Your task to perform on an android device: Open Youtube and go to the subscriptions tab Image 0: 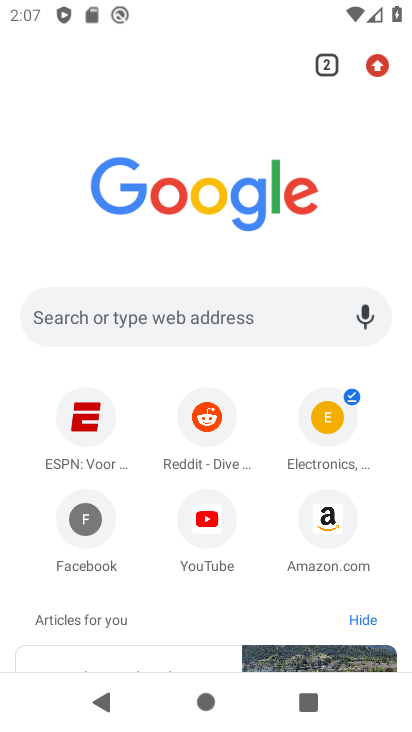
Step 0: press home button
Your task to perform on an android device: Open Youtube and go to the subscriptions tab Image 1: 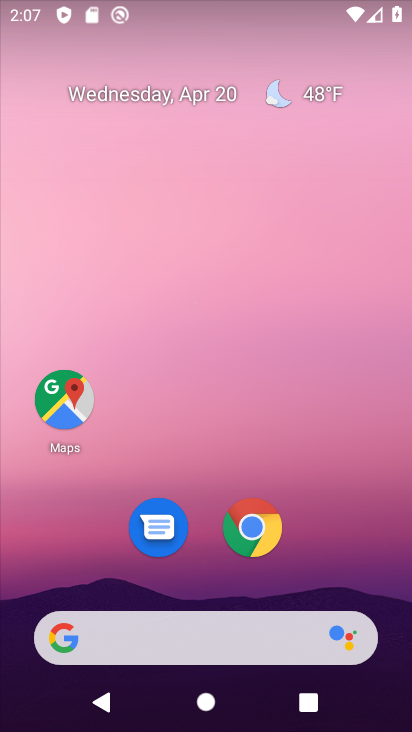
Step 1: drag from (207, 583) to (196, 85)
Your task to perform on an android device: Open Youtube and go to the subscriptions tab Image 2: 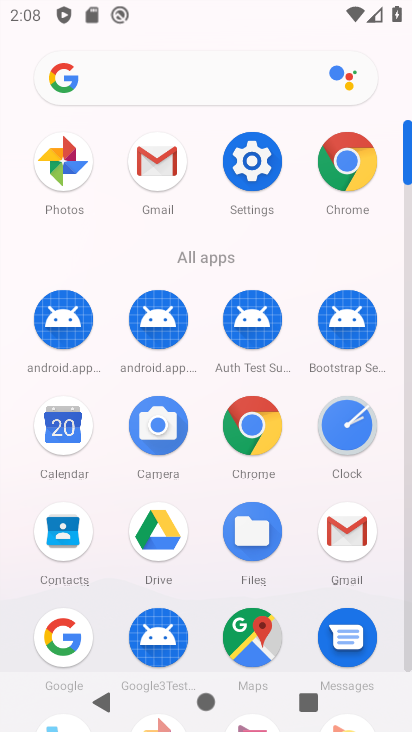
Step 2: drag from (195, 310) to (180, 143)
Your task to perform on an android device: Open Youtube and go to the subscriptions tab Image 3: 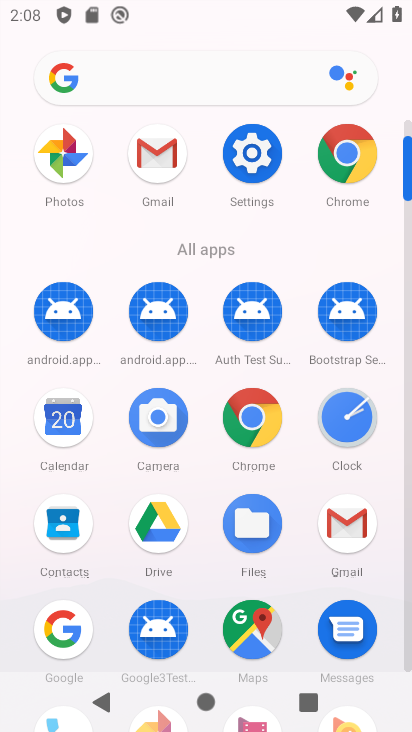
Step 3: drag from (194, 591) to (200, 52)
Your task to perform on an android device: Open Youtube and go to the subscriptions tab Image 4: 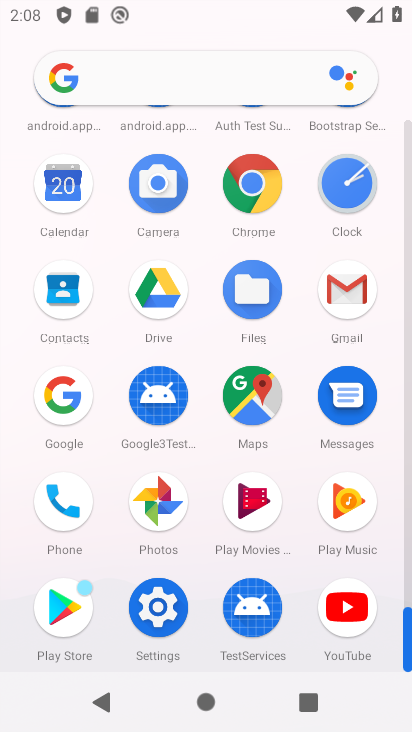
Step 4: click (357, 589)
Your task to perform on an android device: Open Youtube and go to the subscriptions tab Image 5: 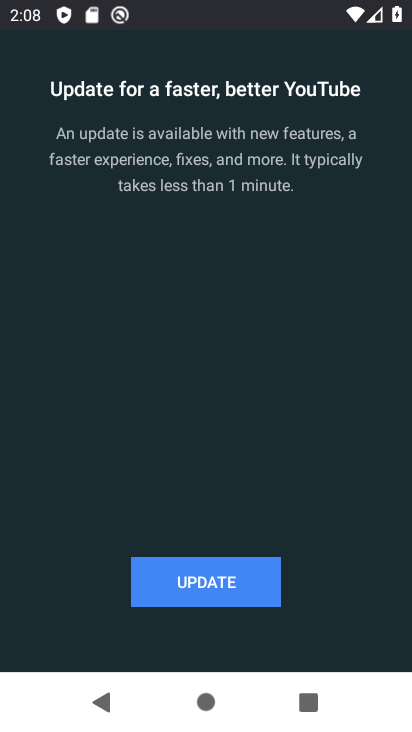
Step 5: click (244, 576)
Your task to perform on an android device: Open Youtube and go to the subscriptions tab Image 6: 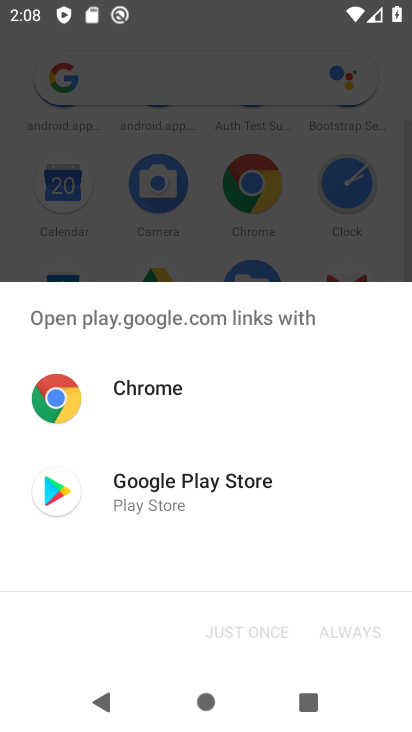
Step 6: click (197, 494)
Your task to perform on an android device: Open Youtube and go to the subscriptions tab Image 7: 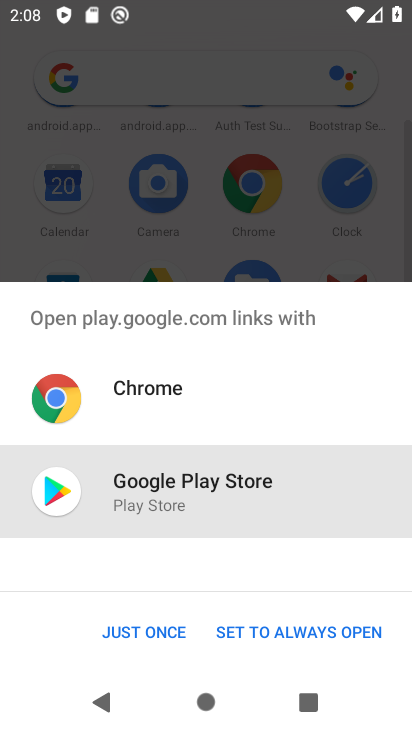
Step 7: click (162, 640)
Your task to perform on an android device: Open Youtube and go to the subscriptions tab Image 8: 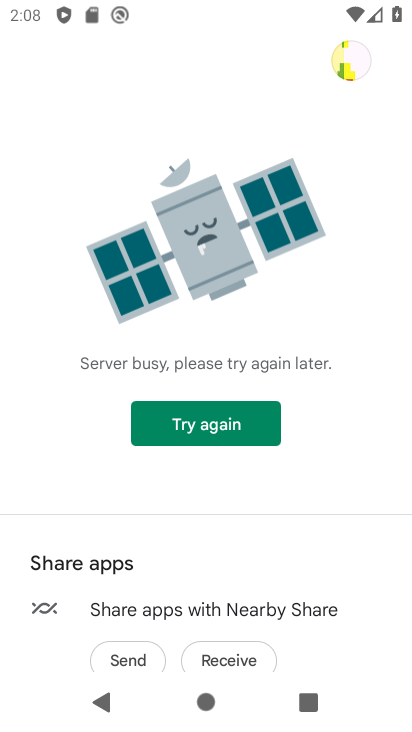
Step 8: click (176, 428)
Your task to perform on an android device: Open Youtube and go to the subscriptions tab Image 9: 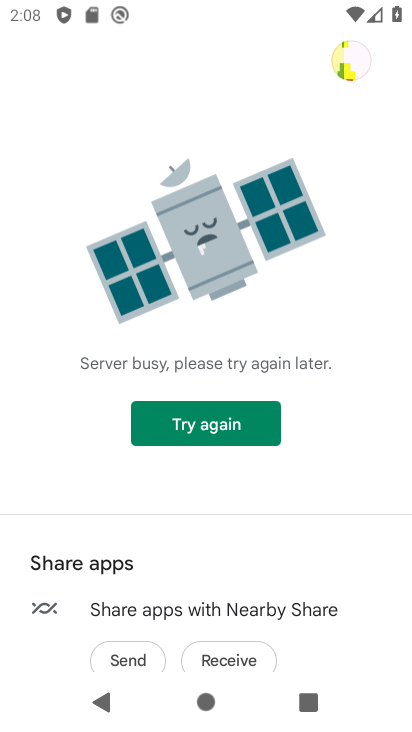
Step 9: click (176, 428)
Your task to perform on an android device: Open Youtube and go to the subscriptions tab Image 10: 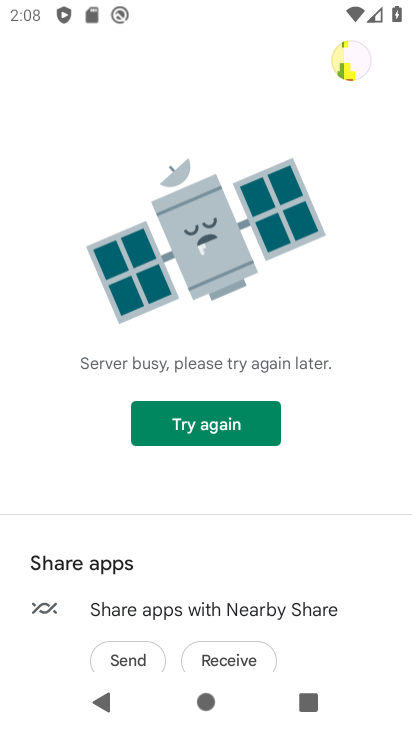
Step 10: task complete